Your task to perform on an android device: Go to eBay Image 0: 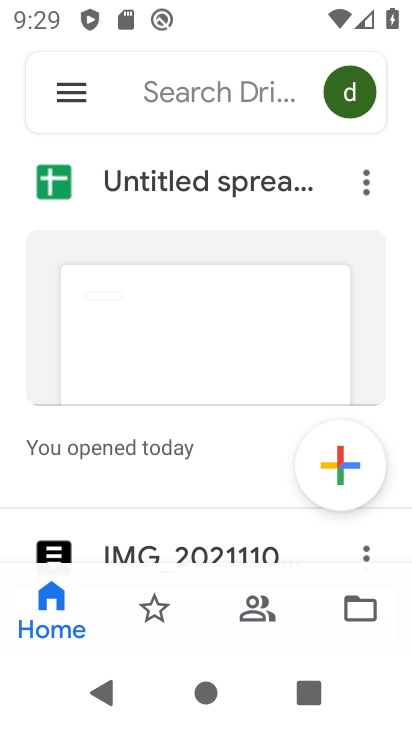
Step 0: press home button
Your task to perform on an android device: Go to eBay Image 1: 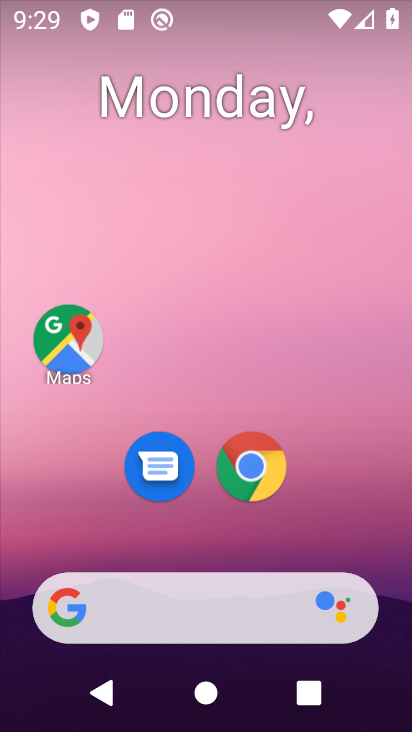
Step 1: click (254, 485)
Your task to perform on an android device: Go to eBay Image 2: 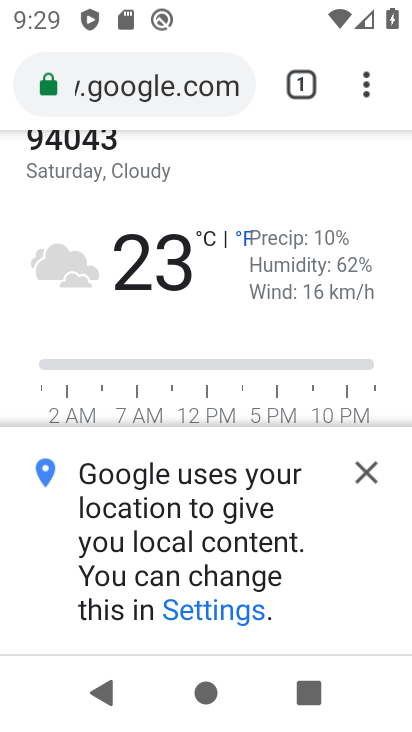
Step 2: click (151, 79)
Your task to perform on an android device: Go to eBay Image 3: 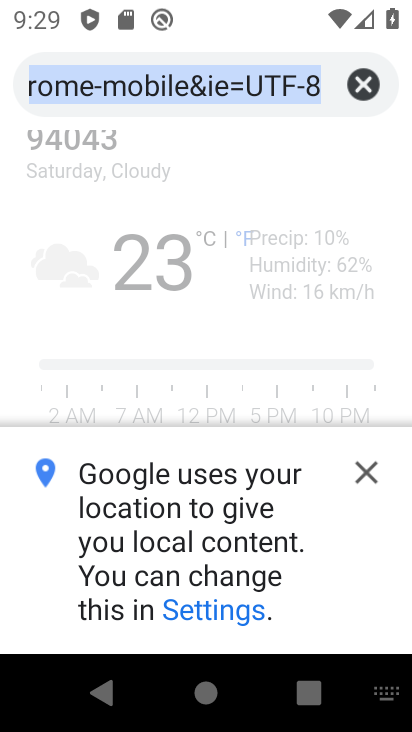
Step 3: click (368, 84)
Your task to perform on an android device: Go to eBay Image 4: 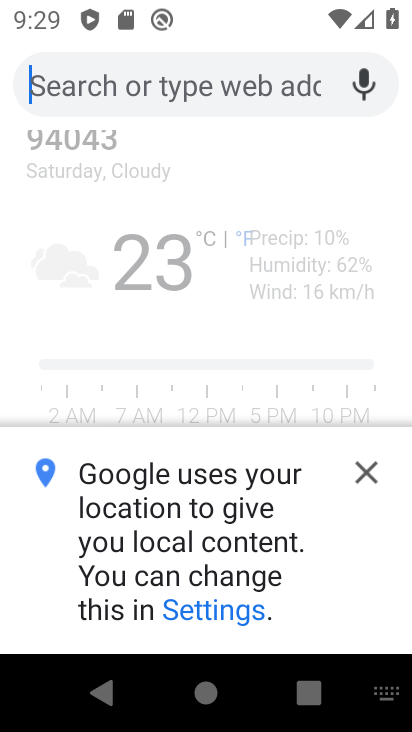
Step 4: type "eBay"
Your task to perform on an android device: Go to eBay Image 5: 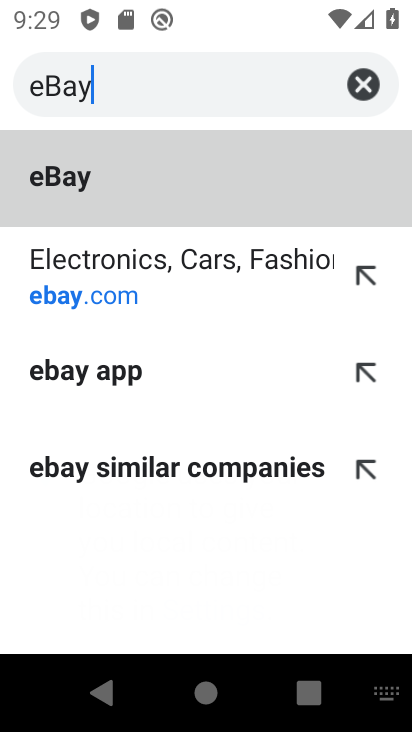
Step 5: click (219, 248)
Your task to perform on an android device: Go to eBay Image 6: 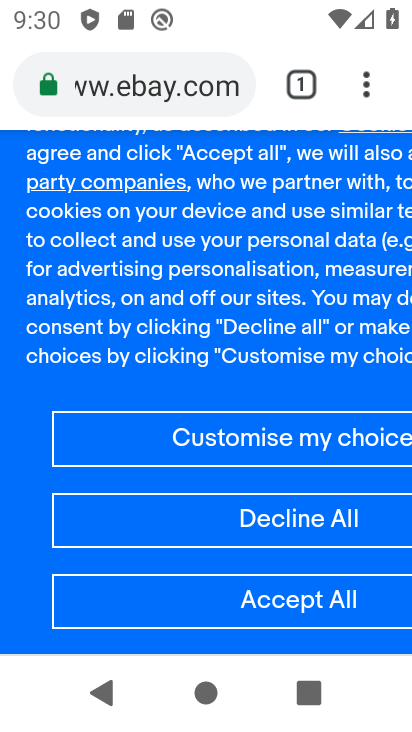
Step 6: task complete